Your task to perform on an android device: move an email to a new category in the gmail app Image 0: 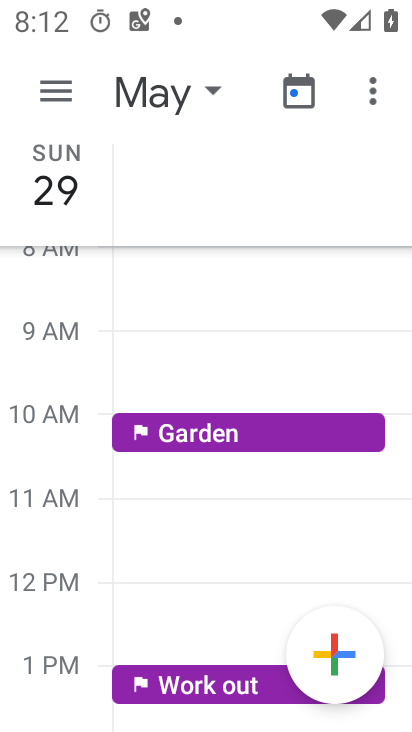
Step 0: press home button
Your task to perform on an android device: move an email to a new category in the gmail app Image 1: 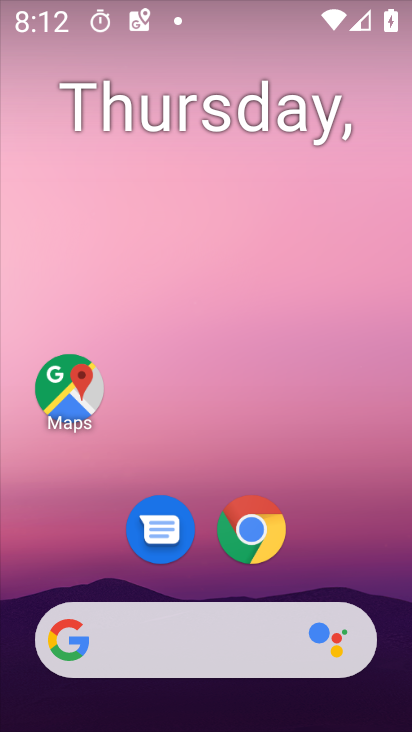
Step 1: drag from (405, 703) to (352, 80)
Your task to perform on an android device: move an email to a new category in the gmail app Image 2: 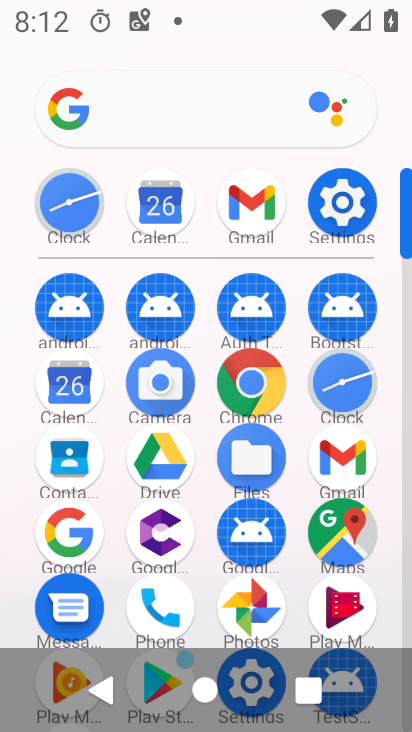
Step 2: click (243, 210)
Your task to perform on an android device: move an email to a new category in the gmail app Image 3: 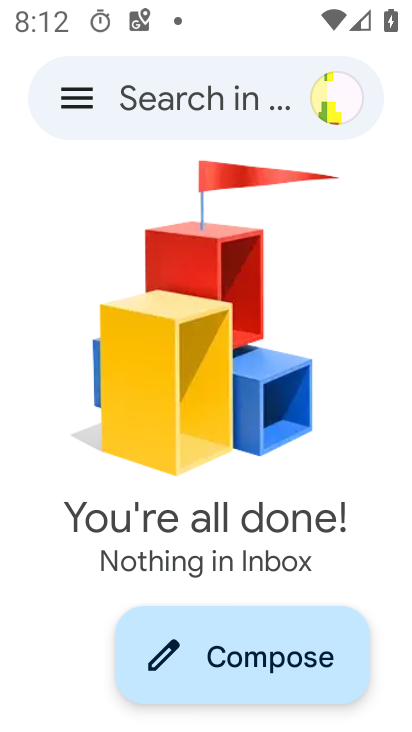
Step 3: click (78, 90)
Your task to perform on an android device: move an email to a new category in the gmail app Image 4: 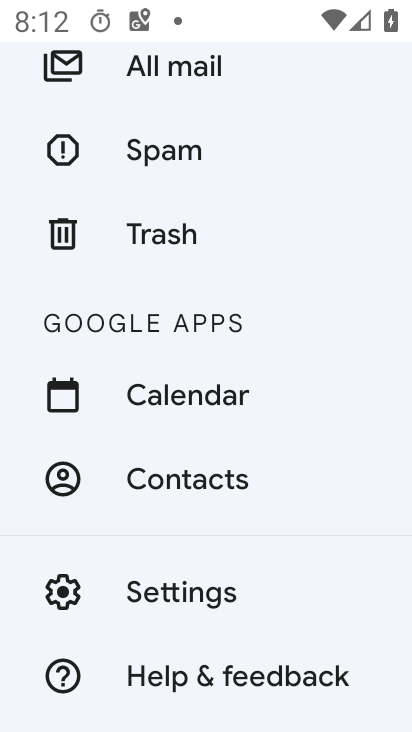
Step 4: drag from (307, 100) to (386, 667)
Your task to perform on an android device: move an email to a new category in the gmail app Image 5: 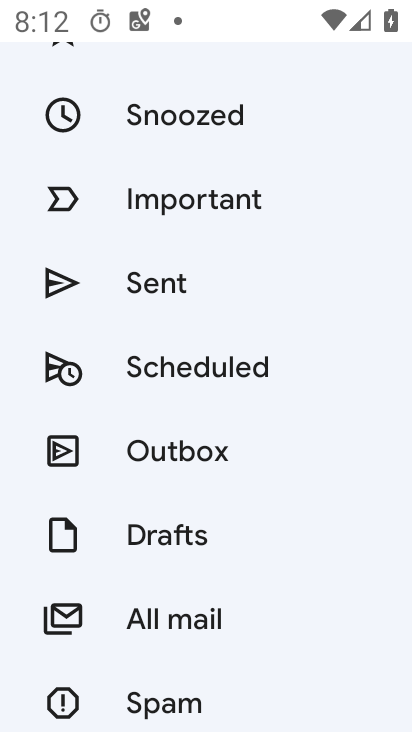
Step 5: drag from (304, 99) to (370, 714)
Your task to perform on an android device: move an email to a new category in the gmail app Image 6: 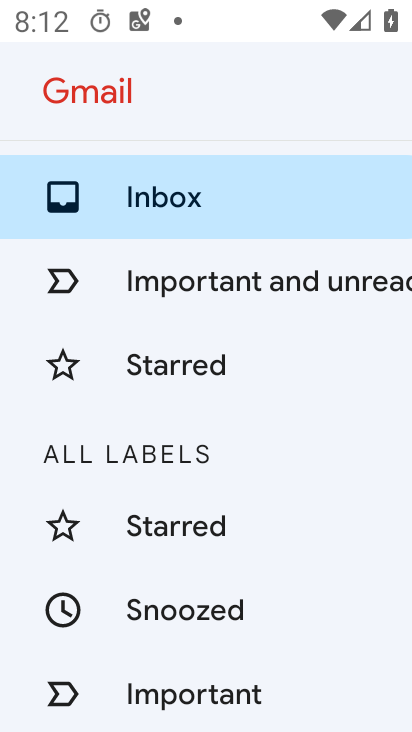
Step 6: click (146, 192)
Your task to perform on an android device: move an email to a new category in the gmail app Image 7: 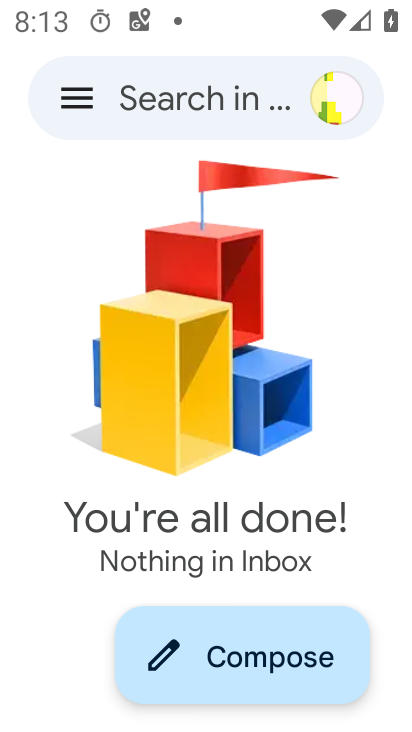
Step 7: task complete